Your task to perform on an android device: delete the emails in spam in the gmail app Image 0: 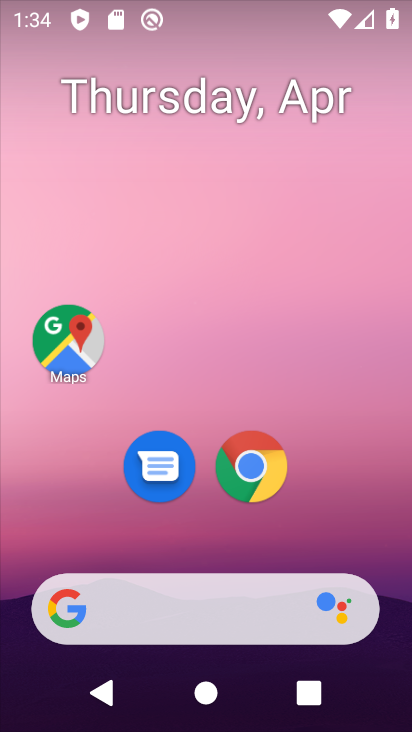
Step 0: drag from (335, 522) to (263, 16)
Your task to perform on an android device: delete the emails in spam in the gmail app Image 1: 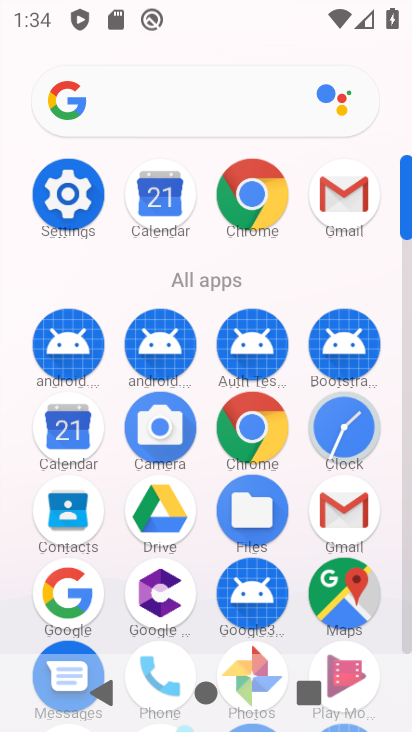
Step 1: drag from (3, 485) to (2, 234)
Your task to perform on an android device: delete the emails in spam in the gmail app Image 2: 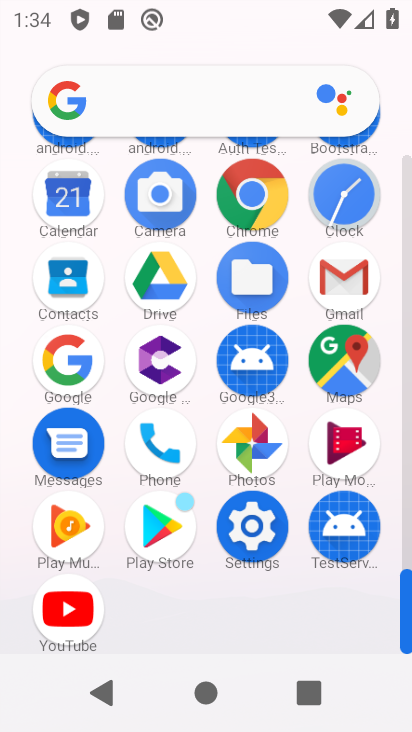
Step 2: click (345, 387)
Your task to perform on an android device: delete the emails in spam in the gmail app Image 3: 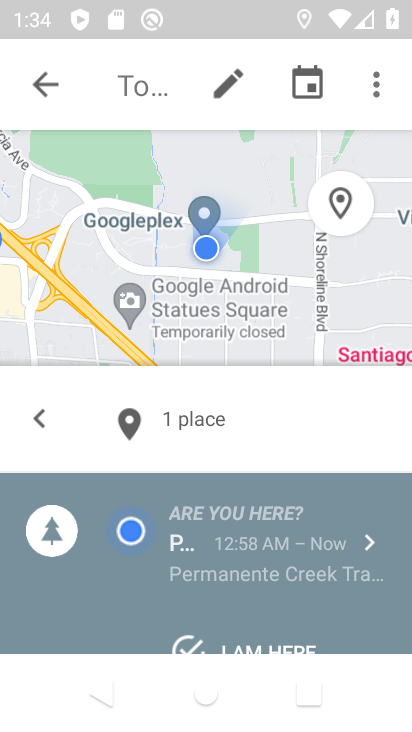
Step 3: press back button
Your task to perform on an android device: delete the emails in spam in the gmail app Image 4: 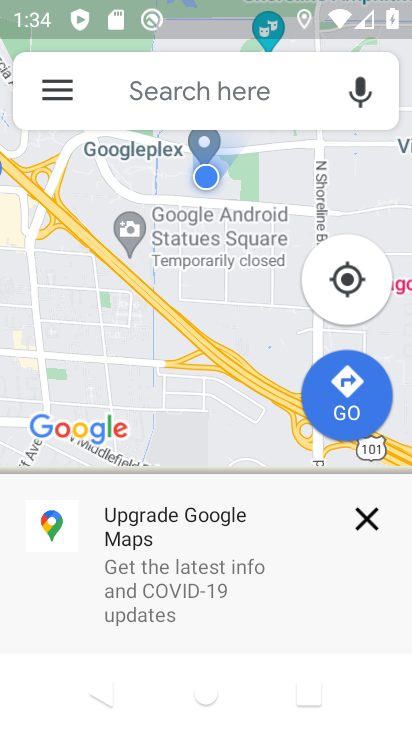
Step 4: press back button
Your task to perform on an android device: delete the emails in spam in the gmail app Image 5: 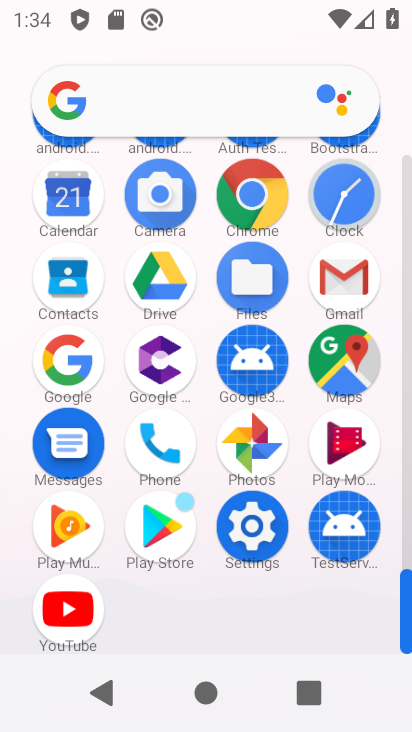
Step 5: click (338, 266)
Your task to perform on an android device: delete the emails in spam in the gmail app Image 6: 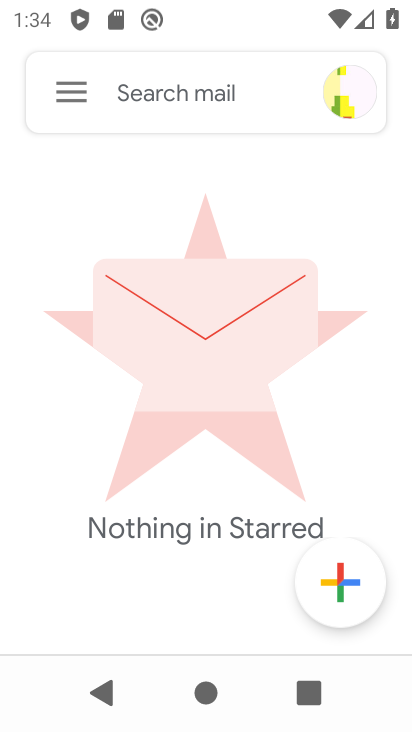
Step 6: click (84, 89)
Your task to perform on an android device: delete the emails in spam in the gmail app Image 7: 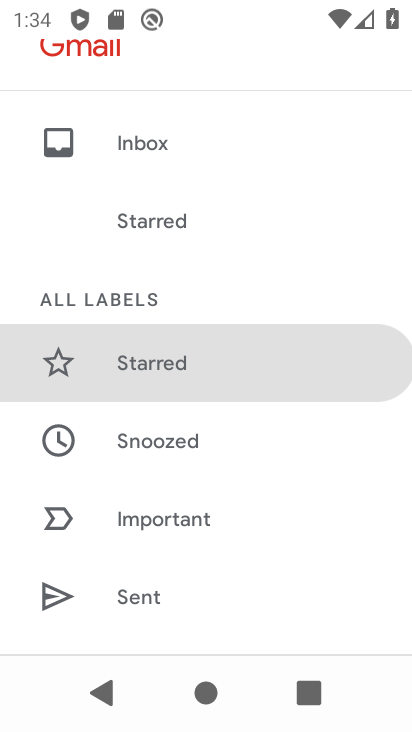
Step 7: drag from (222, 511) to (262, 157)
Your task to perform on an android device: delete the emails in spam in the gmail app Image 8: 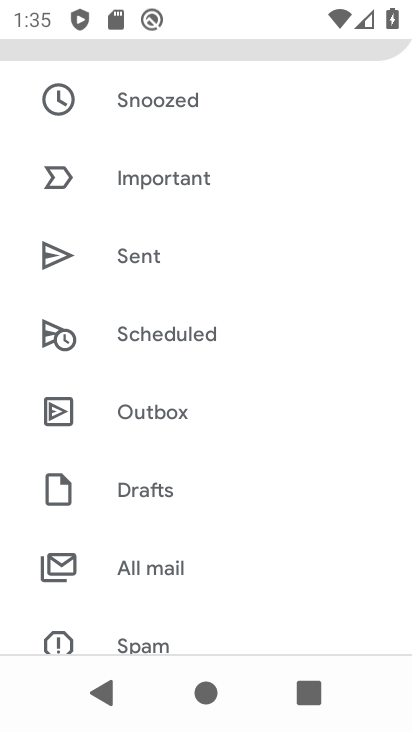
Step 8: drag from (268, 488) to (252, 163)
Your task to perform on an android device: delete the emails in spam in the gmail app Image 9: 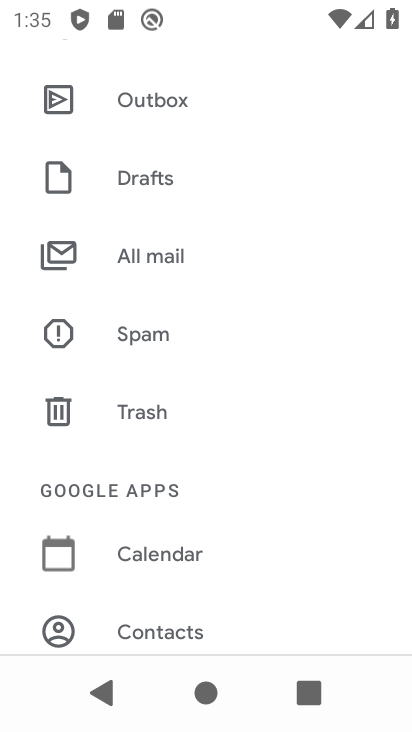
Step 9: click (163, 333)
Your task to perform on an android device: delete the emails in spam in the gmail app Image 10: 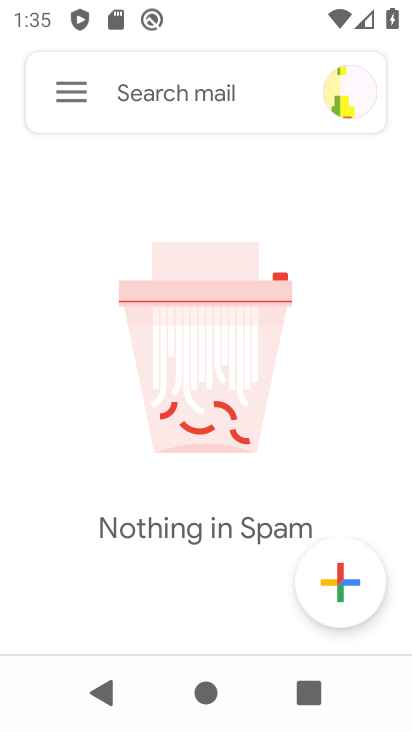
Step 10: task complete